Your task to perform on an android device: Go to Yahoo.com Image 0: 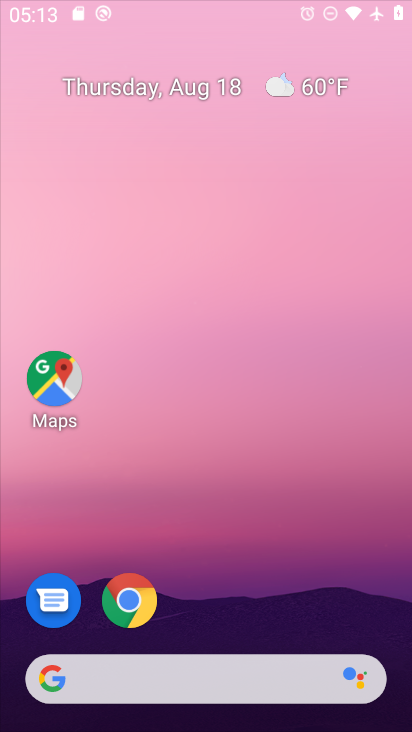
Step 0: press home button
Your task to perform on an android device: Go to Yahoo.com Image 1: 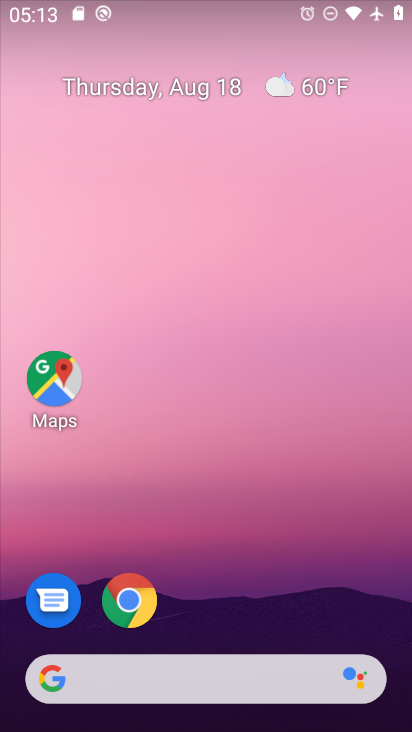
Step 1: click (51, 679)
Your task to perform on an android device: Go to Yahoo.com Image 2: 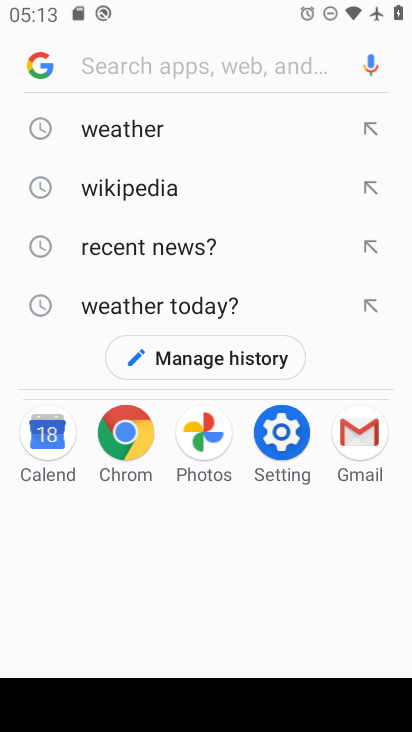
Step 2: type "Yahoo.com"
Your task to perform on an android device: Go to Yahoo.com Image 3: 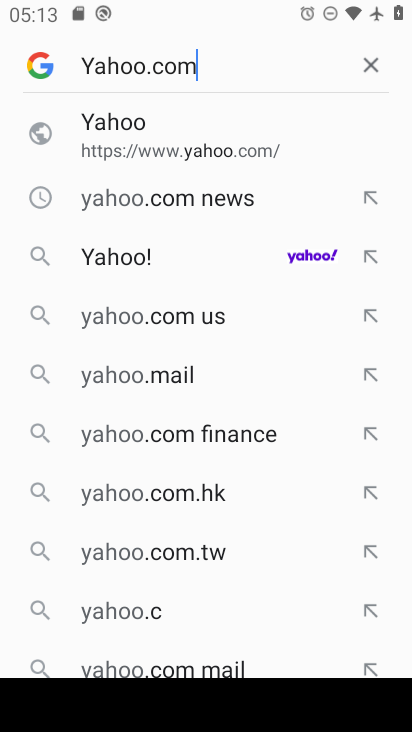
Step 3: press enter
Your task to perform on an android device: Go to Yahoo.com Image 4: 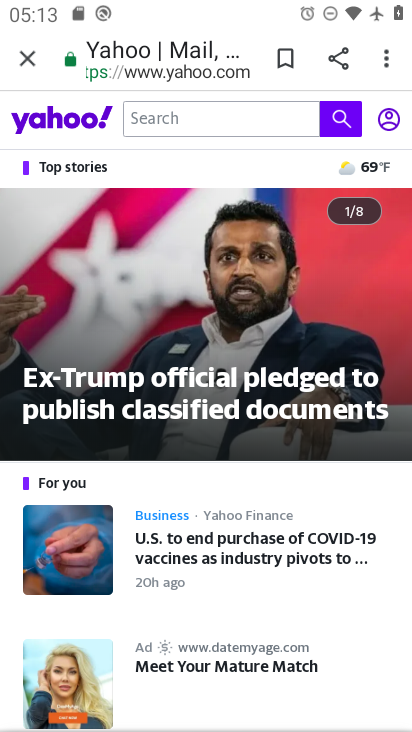
Step 4: task complete